Your task to perform on an android device: Go to privacy settings Image 0: 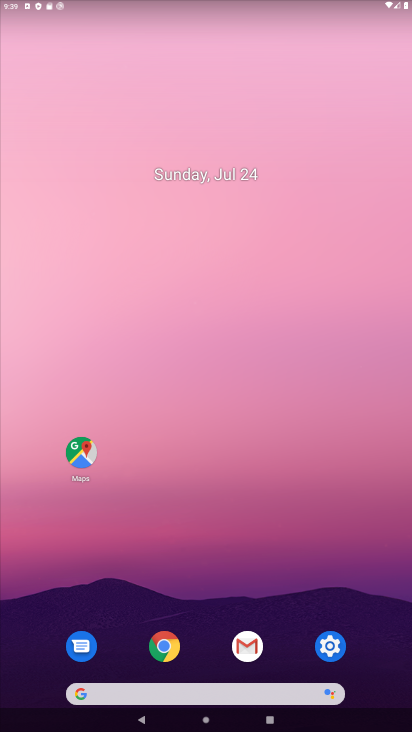
Step 0: click (339, 652)
Your task to perform on an android device: Go to privacy settings Image 1: 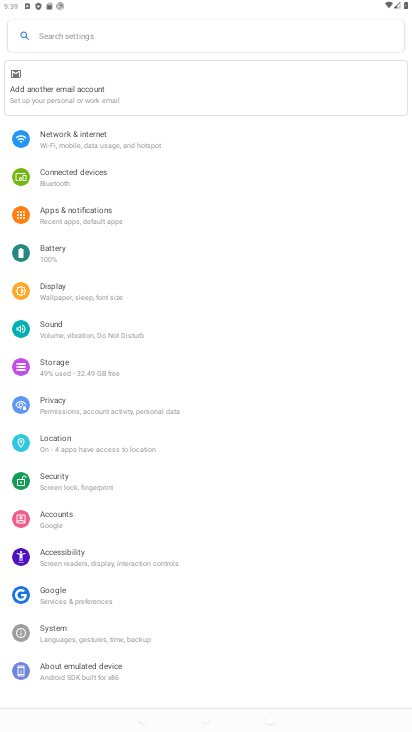
Step 1: click (88, 406)
Your task to perform on an android device: Go to privacy settings Image 2: 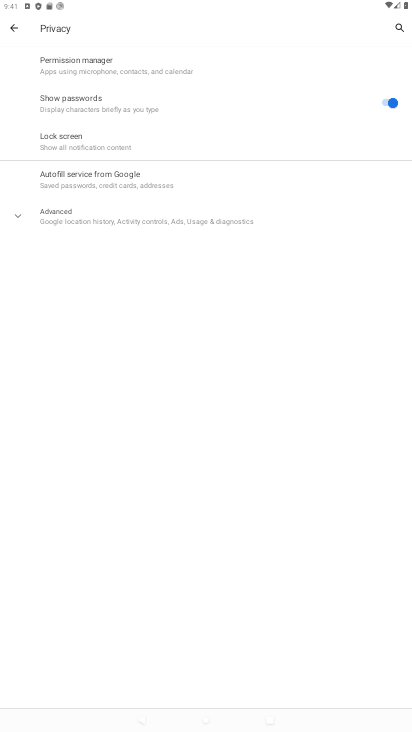
Step 2: task complete